Your task to perform on an android device: Find coffee shops on Maps Image 0: 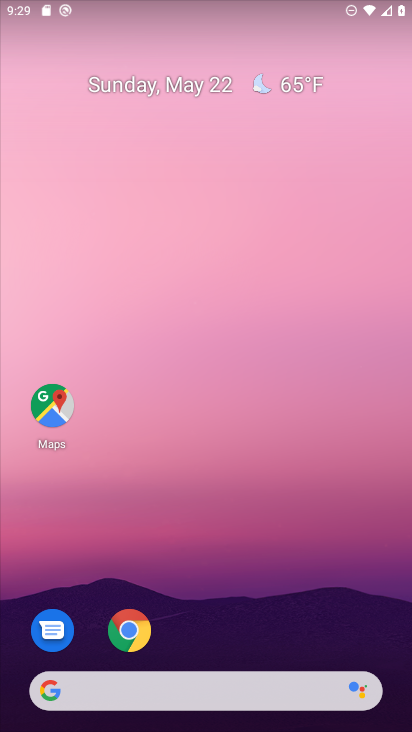
Step 0: press home button
Your task to perform on an android device: Find coffee shops on Maps Image 1: 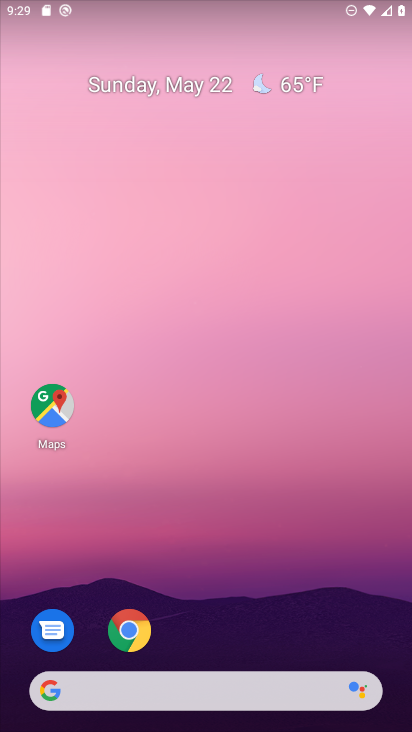
Step 1: click (54, 396)
Your task to perform on an android device: Find coffee shops on Maps Image 2: 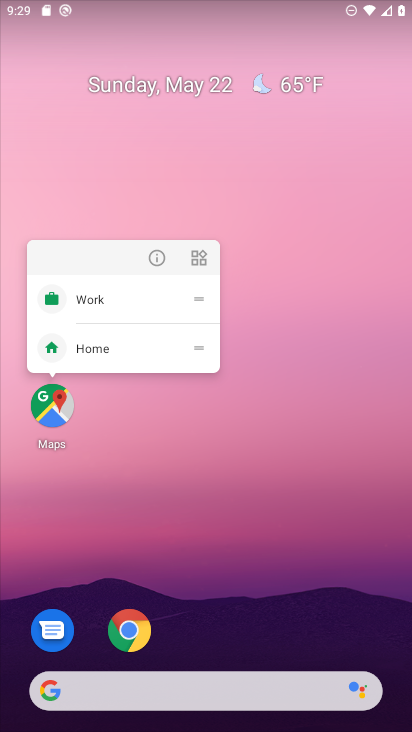
Step 2: click (45, 410)
Your task to perform on an android device: Find coffee shops on Maps Image 3: 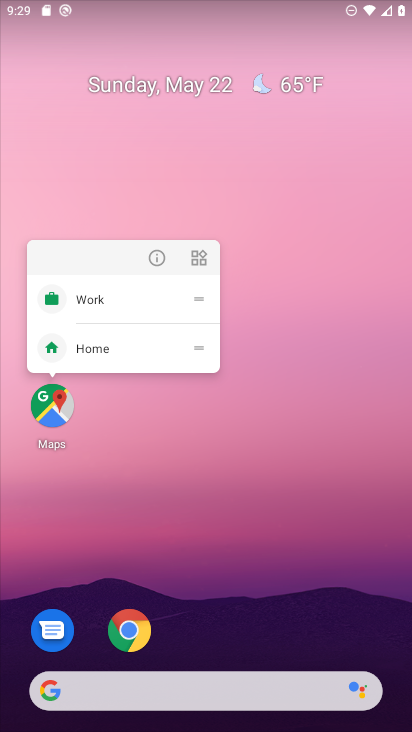
Step 3: click (59, 418)
Your task to perform on an android device: Find coffee shops on Maps Image 4: 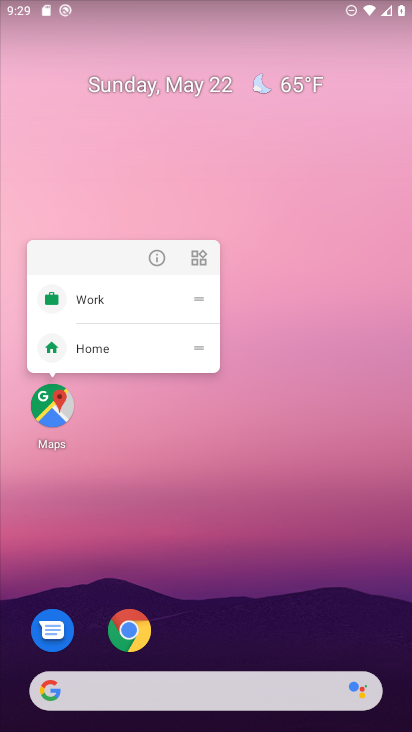
Step 4: click (52, 415)
Your task to perform on an android device: Find coffee shops on Maps Image 5: 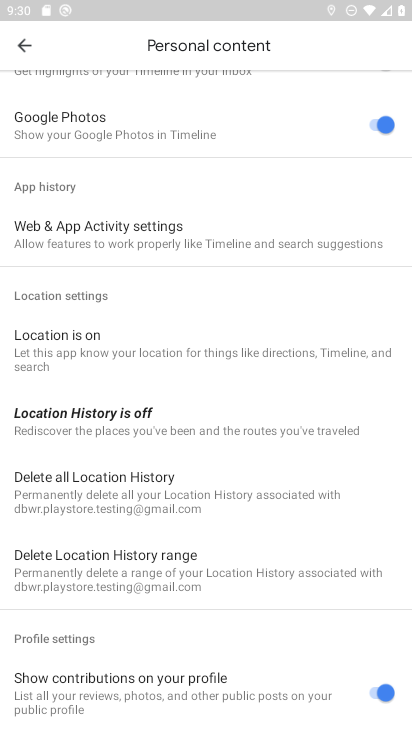
Step 5: click (23, 45)
Your task to perform on an android device: Find coffee shops on Maps Image 6: 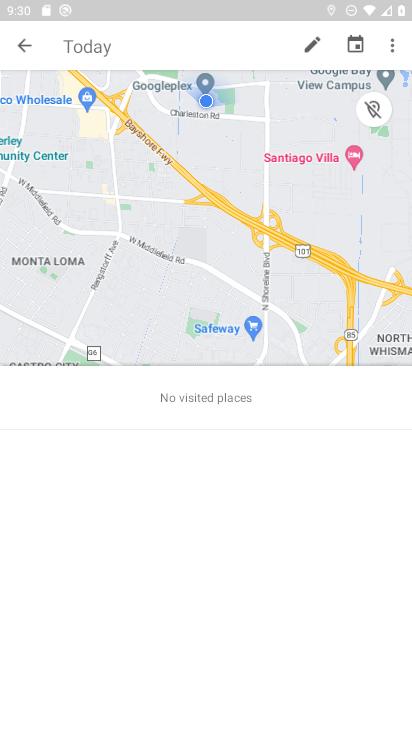
Step 6: click (23, 45)
Your task to perform on an android device: Find coffee shops on Maps Image 7: 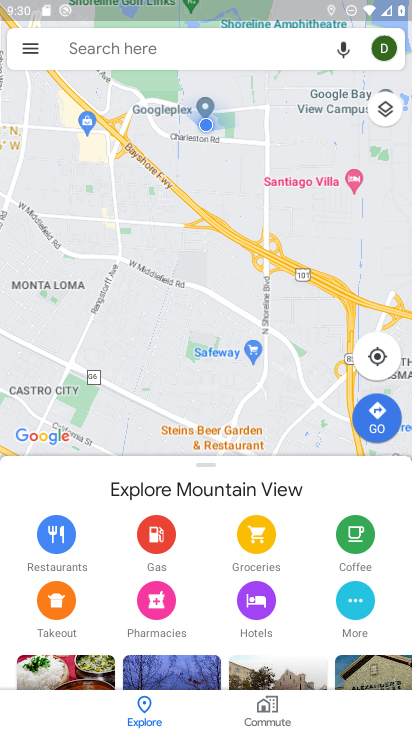
Step 7: click (153, 36)
Your task to perform on an android device: Find coffee shops on Maps Image 8: 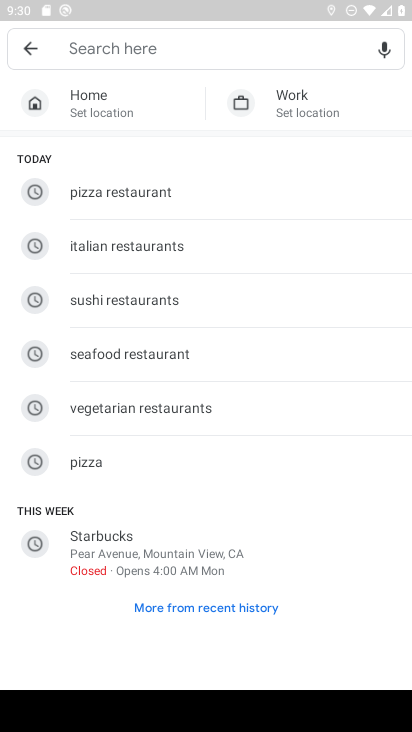
Step 8: type "coffee"
Your task to perform on an android device: Find coffee shops on Maps Image 9: 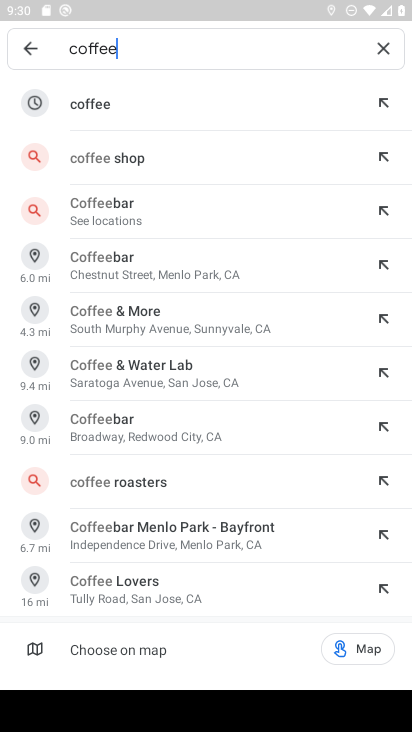
Step 9: click (117, 157)
Your task to perform on an android device: Find coffee shops on Maps Image 10: 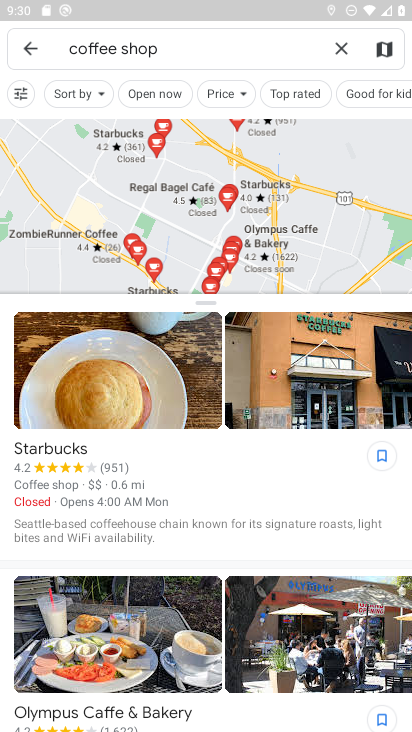
Step 10: task complete